Your task to perform on an android device: Toggle the flashlight Image 0: 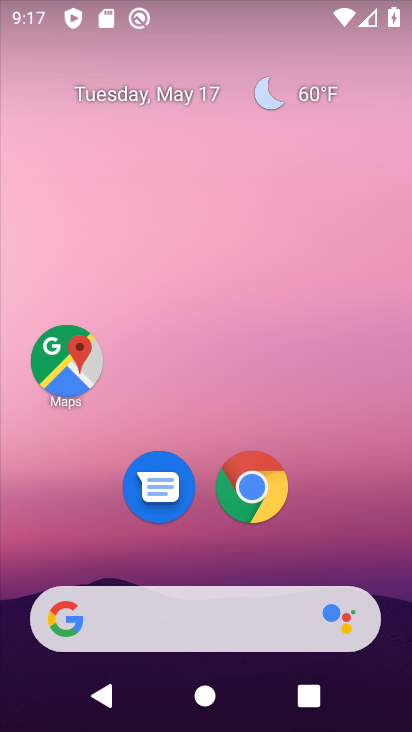
Step 0: drag from (203, 544) to (229, 12)
Your task to perform on an android device: Toggle the flashlight Image 1: 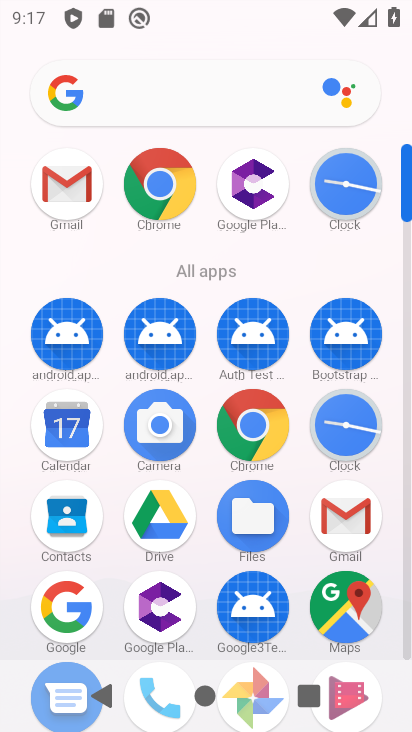
Step 1: drag from (210, 492) to (223, 225)
Your task to perform on an android device: Toggle the flashlight Image 2: 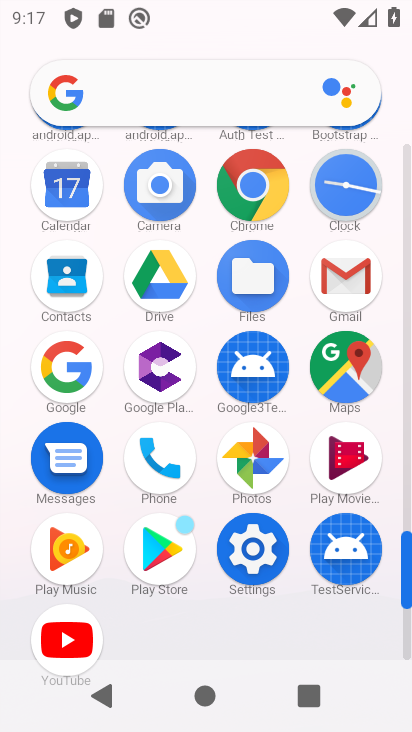
Step 2: click (258, 568)
Your task to perform on an android device: Toggle the flashlight Image 3: 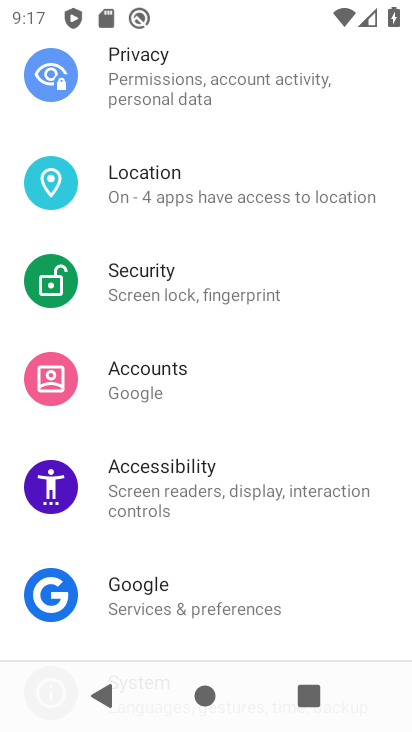
Step 3: drag from (206, 97) to (193, 558)
Your task to perform on an android device: Toggle the flashlight Image 4: 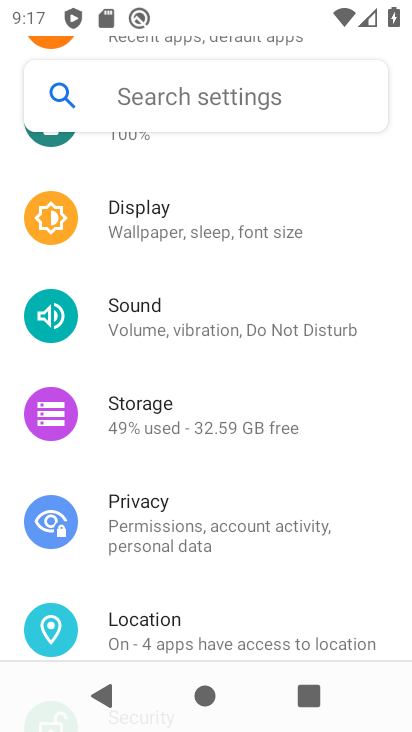
Step 4: click (214, 92)
Your task to perform on an android device: Toggle the flashlight Image 5: 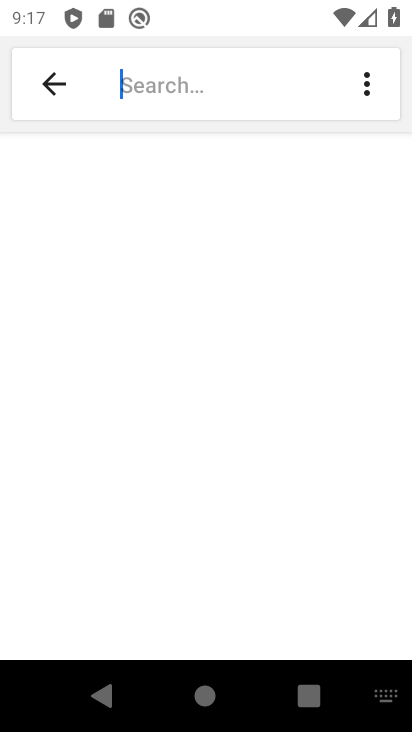
Step 5: type "flashlight"
Your task to perform on an android device: Toggle the flashlight Image 6: 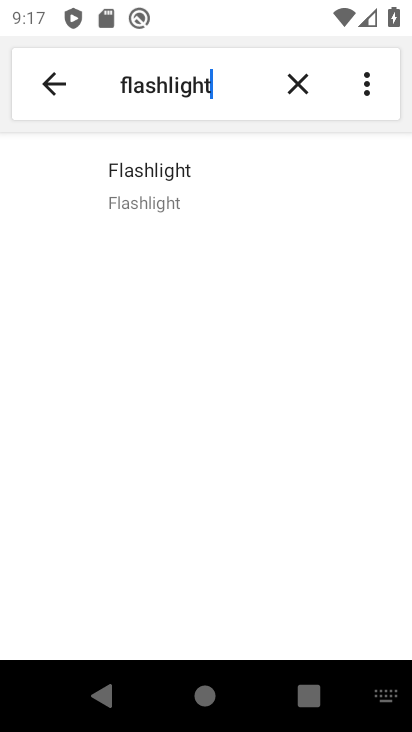
Step 6: click (158, 164)
Your task to perform on an android device: Toggle the flashlight Image 7: 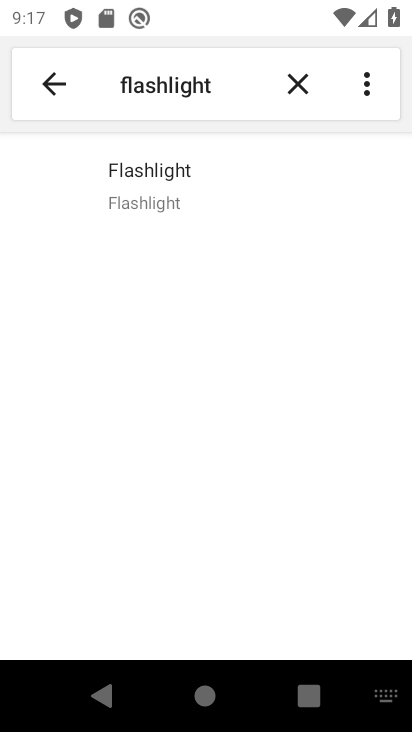
Step 7: click (133, 184)
Your task to perform on an android device: Toggle the flashlight Image 8: 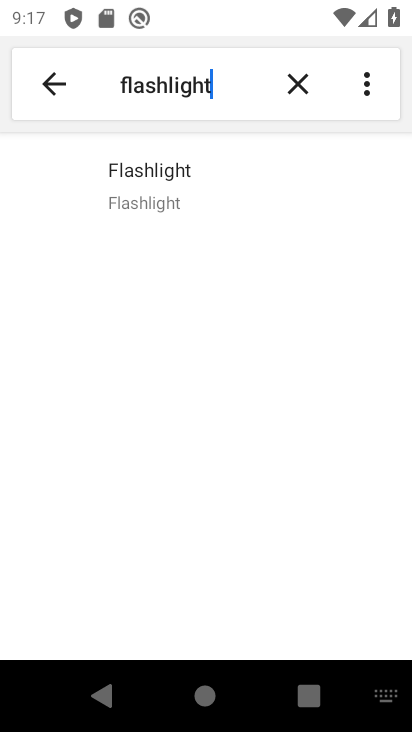
Step 8: task complete